Your task to perform on an android device: Open Google Chrome and click the shortcut for Amazon.com Image 0: 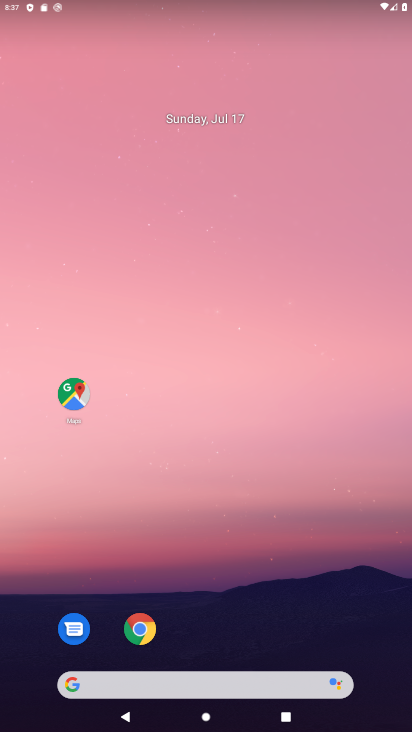
Step 0: drag from (227, 667) to (335, 51)
Your task to perform on an android device: Open Google Chrome and click the shortcut for Amazon.com Image 1: 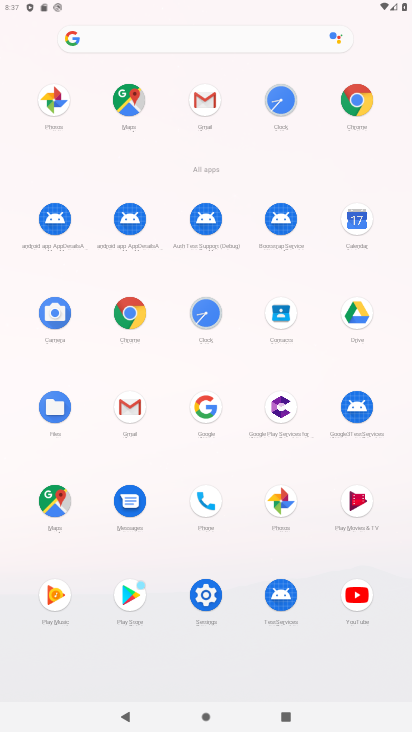
Step 1: click (121, 316)
Your task to perform on an android device: Open Google Chrome and click the shortcut for Amazon.com Image 2: 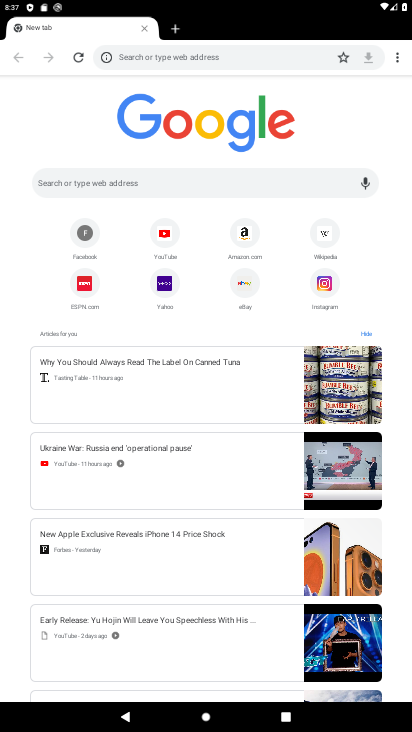
Step 2: click (242, 248)
Your task to perform on an android device: Open Google Chrome and click the shortcut for Amazon.com Image 3: 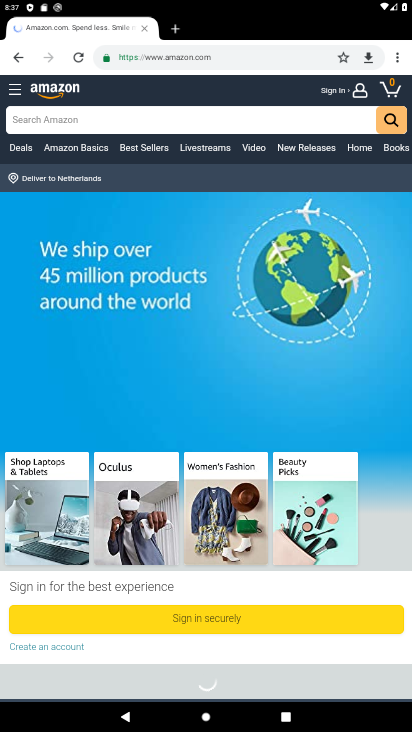
Step 3: task complete